Your task to perform on an android device: Go to location settings Image 0: 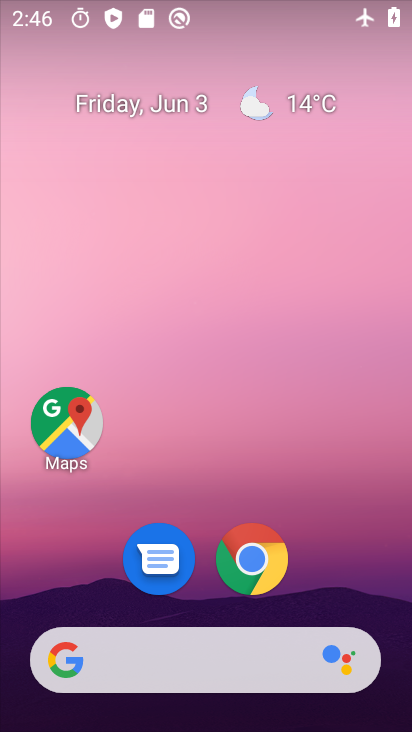
Step 0: drag from (219, 624) to (202, 2)
Your task to perform on an android device: Go to location settings Image 1: 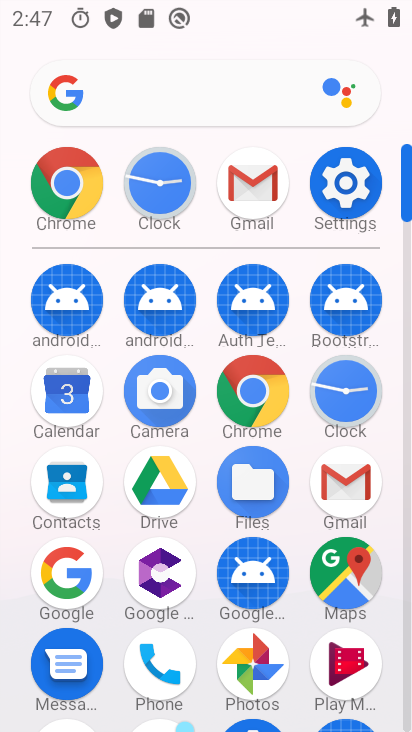
Step 1: click (340, 177)
Your task to perform on an android device: Go to location settings Image 2: 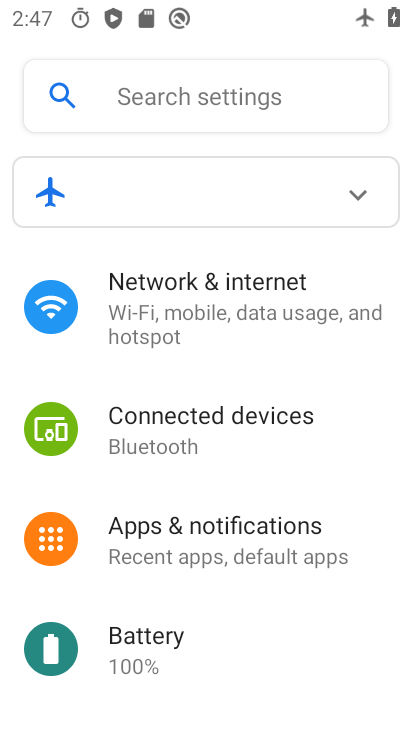
Step 2: drag from (302, 631) to (236, 103)
Your task to perform on an android device: Go to location settings Image 3: 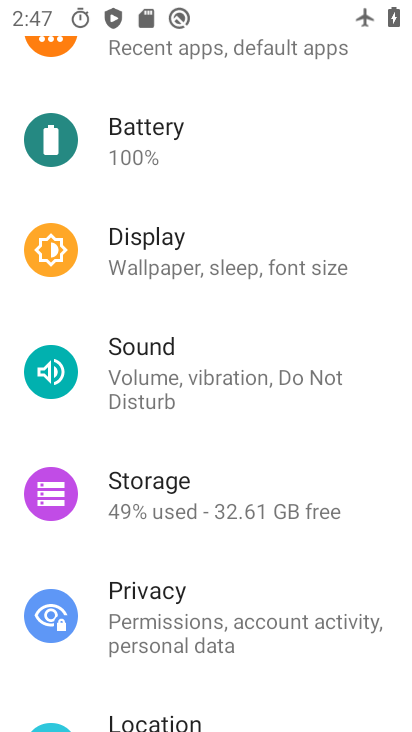
Step 3: click (148, 716)
Your task to perform on an android device: Go to location settings Image 4: 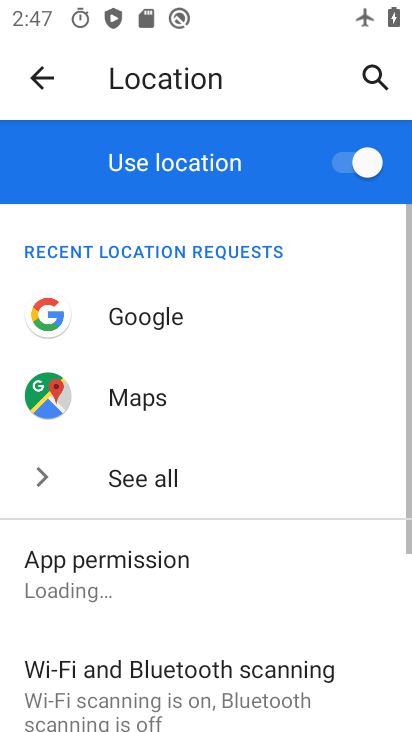
Step 4: task complete